Your task to perform on an android device: turn on data saver in the chrome app Image 0: 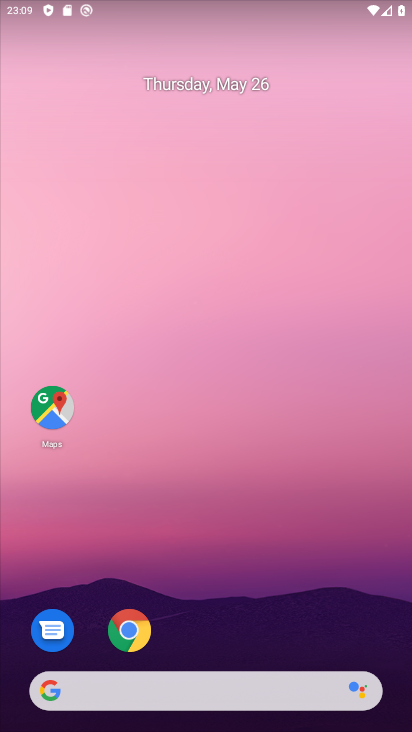
Step 0: click (129, 632)
Your task to perform on an android device: turn on data saver in the chrome app Image 1: 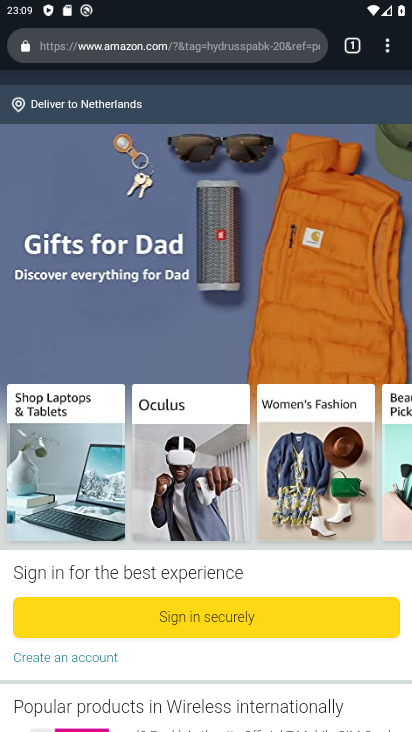
Step 1: click (389, 48)
Your task to perform on an android device: turn on data saver in the chrome app Image 2: 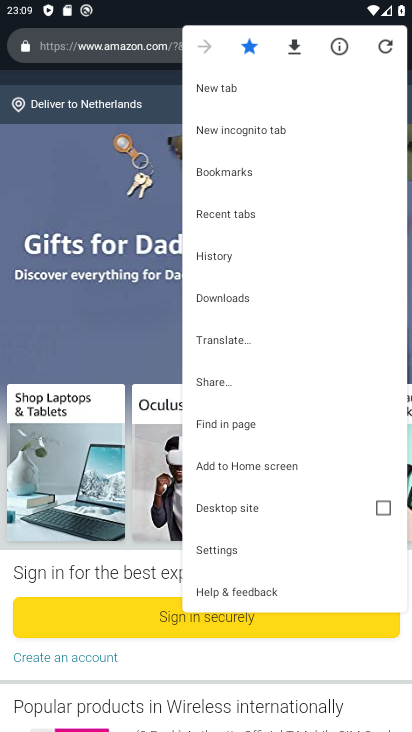
Step 2: click (229, 551)
Your task to perform on an android device: turn on data saver in the chrome app Image 3: 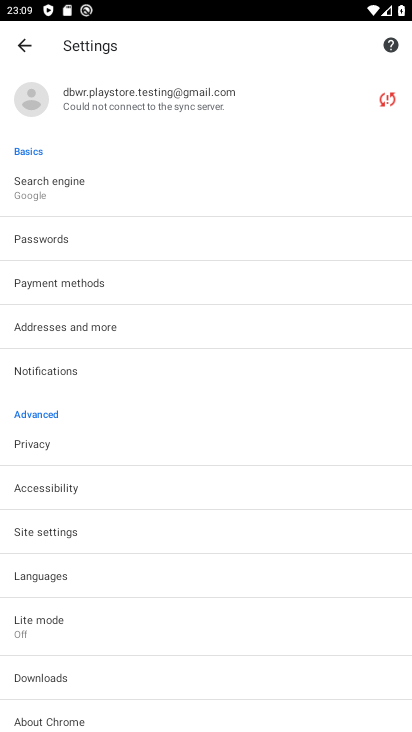
Step 3: click (65, 620)
Your task to perform on an android device: turn on data saver in the chrome app Image 4: 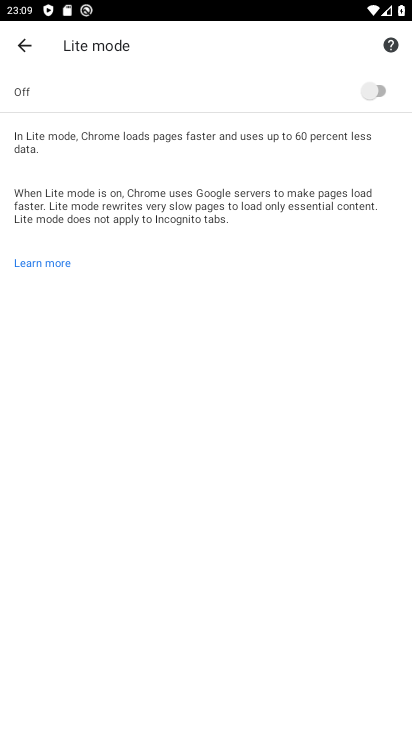
Step 4: click (385, 91)
Your task to perform on an android device: turn on data saver in the chrome app Image 5: 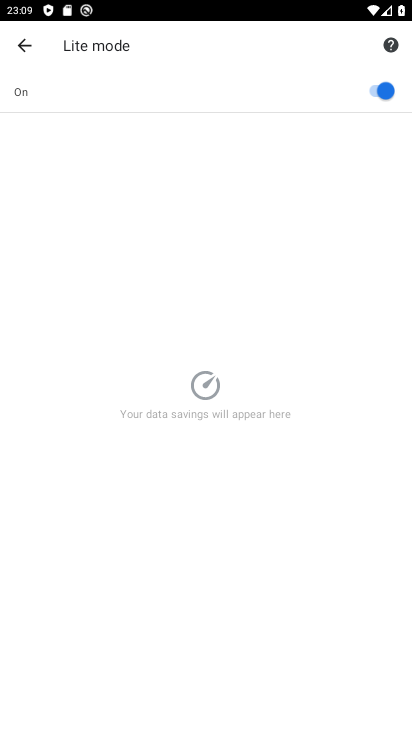
Step 5: task complete